Your task to perform on an android device: choose inbox layout in the gmail app Image 0: 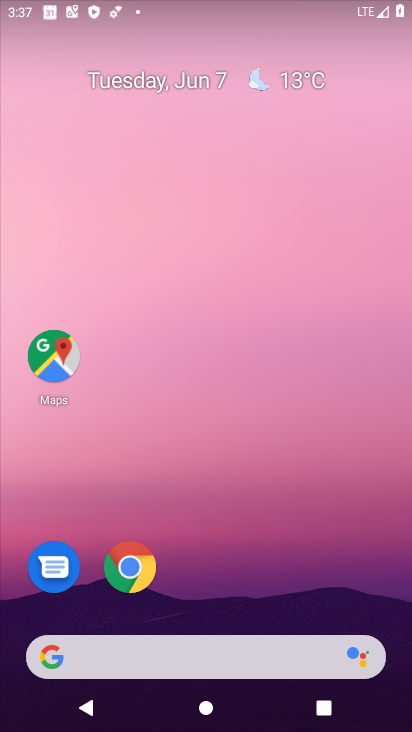
Step 0: drag from (220, 607) to (279, 85)
Your task to perform on an android device: choose inbox layout in the gmail app Image 1: 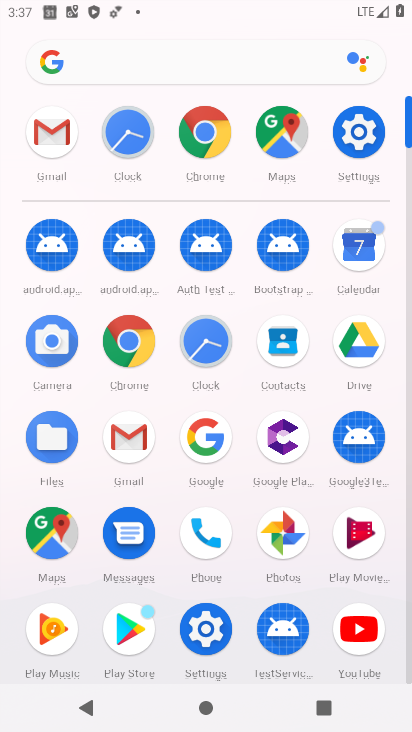
Step 1: click (132, 433)
Your task to perform on an android device: choose inbox layout in the gmail app Image 2: 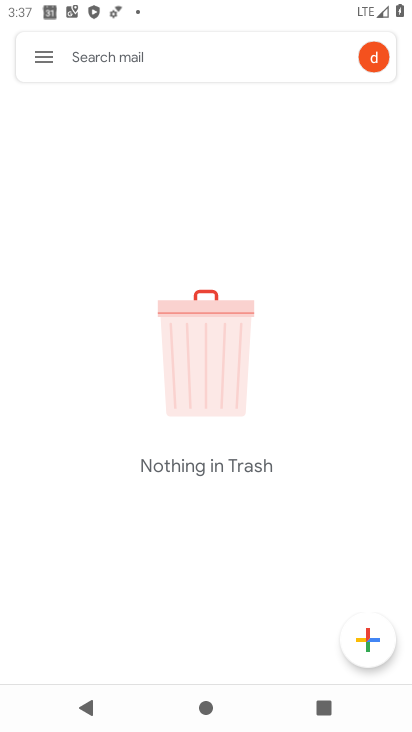
Step 2: click (39, 55)
Your task to perform on an android device: choose inbox layout in the gmail app Image 3: 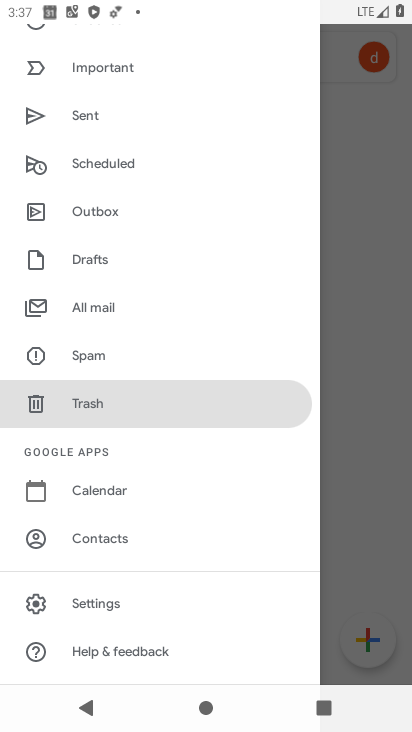
Step 3: click (98, 604)
Your task to perform on an android device: choose inbox layout in the gmail app Image 4: 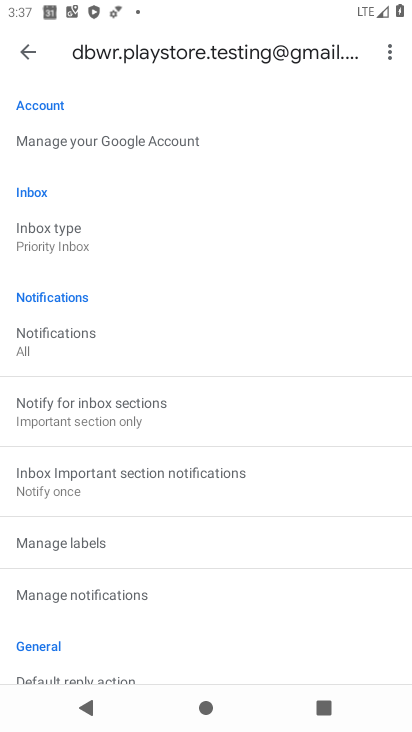
Step 4: click (58, 243)
Your task to perform on an android device: choose inbox layout in the gmail app Image 5: 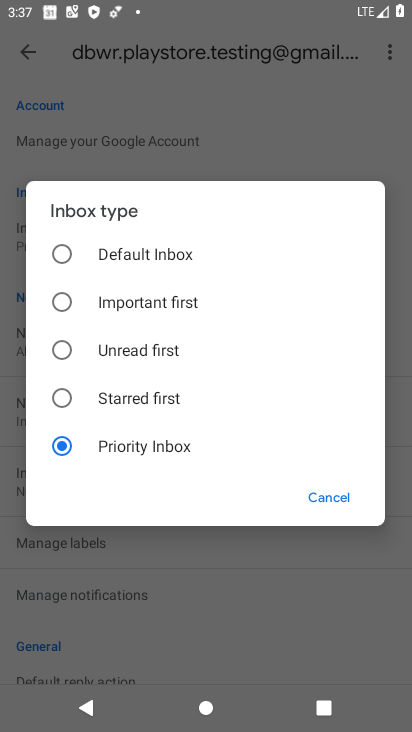
Step 5: click (73, 250)
Your task to perform on an android device: choose inbox layout in the gmail app Image 6: 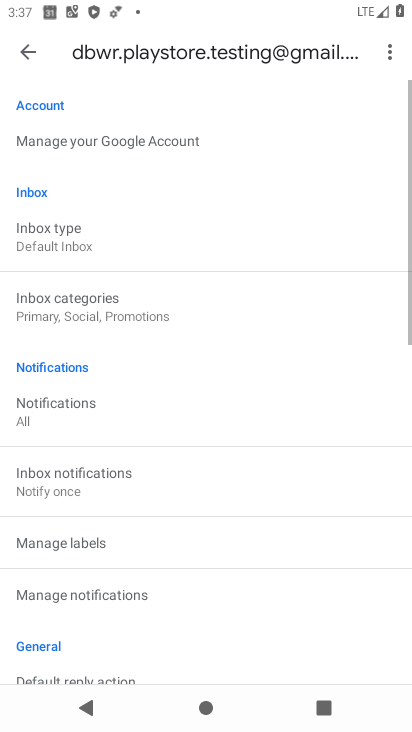
Step 6: task complete